Your task to perform on an android device: set default search engine in the chrome app Image 0: 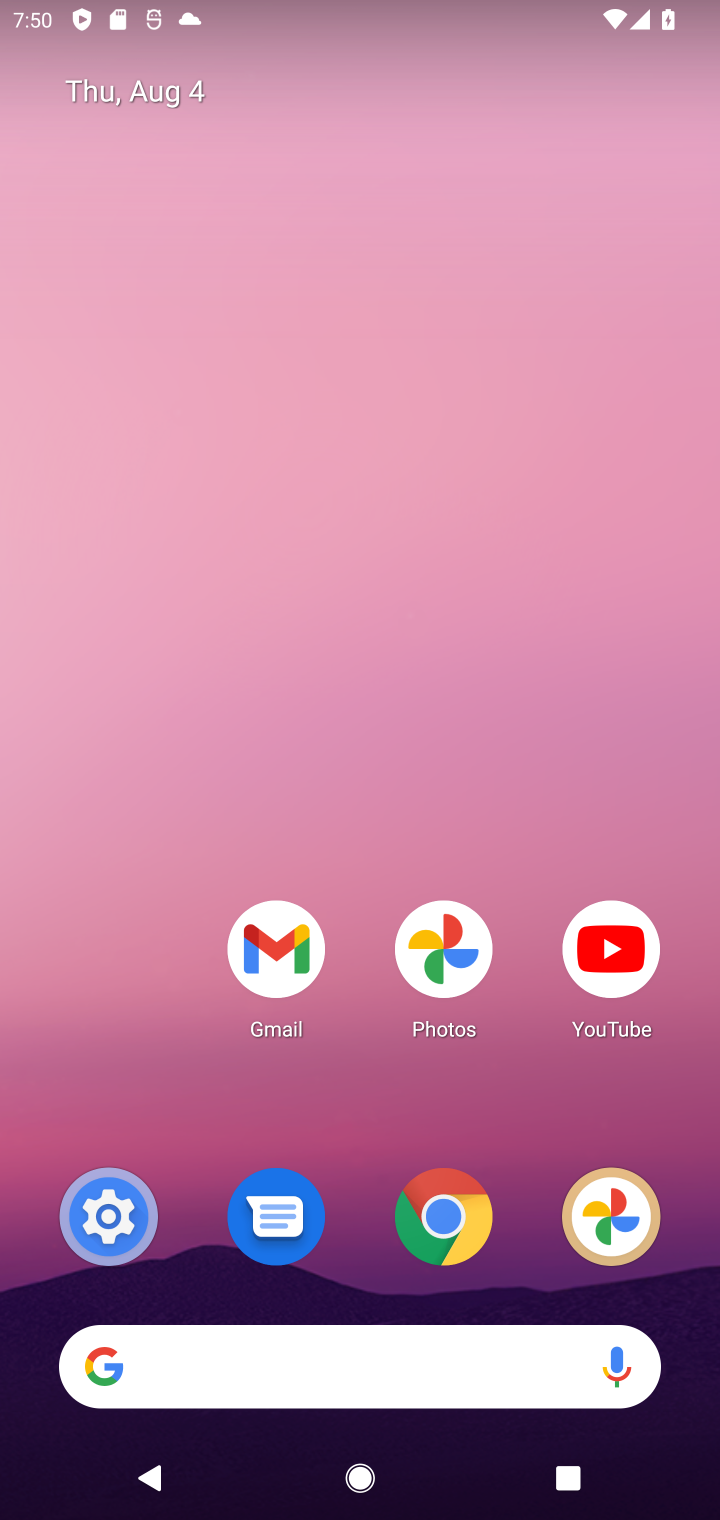
Step 0: click (441, 1207)
Your task to perform on an android device: set default search engine in the chrome app Image 1: 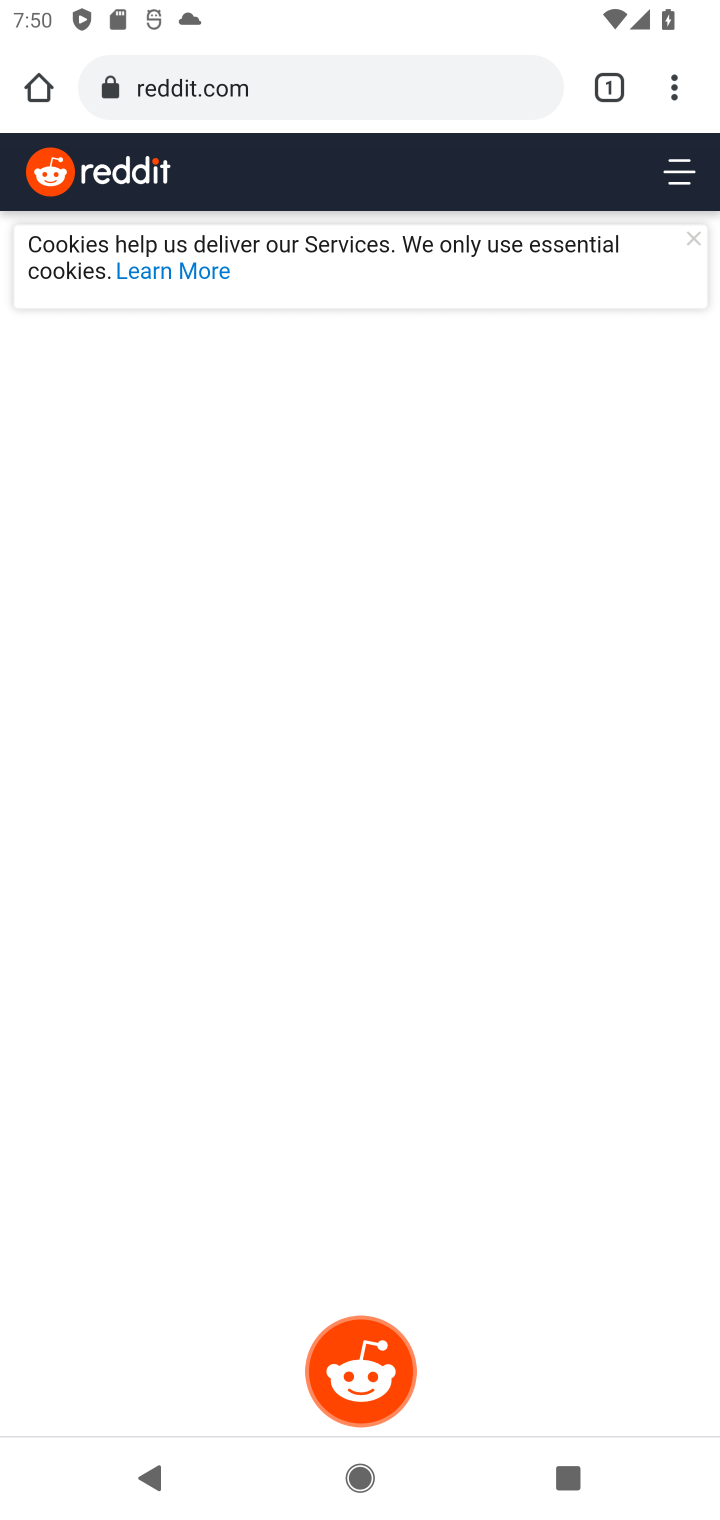
Step 1: click (673, 92)
Your task to perform on an android device: set default search engine in the chrome app Image 2: 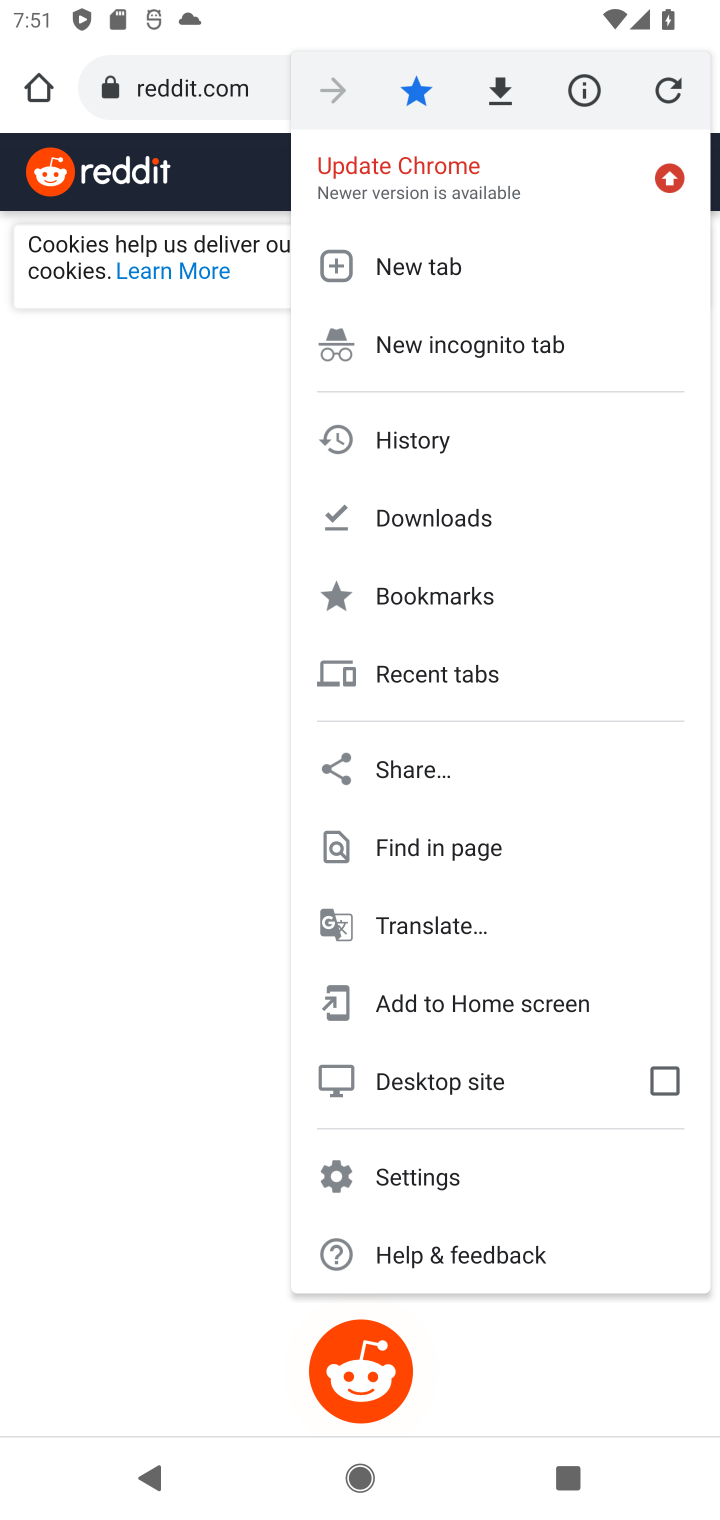
Step 2: click (422, 1158)
Your task to perform on an android device: set default search engine in the chrome app Image 3: 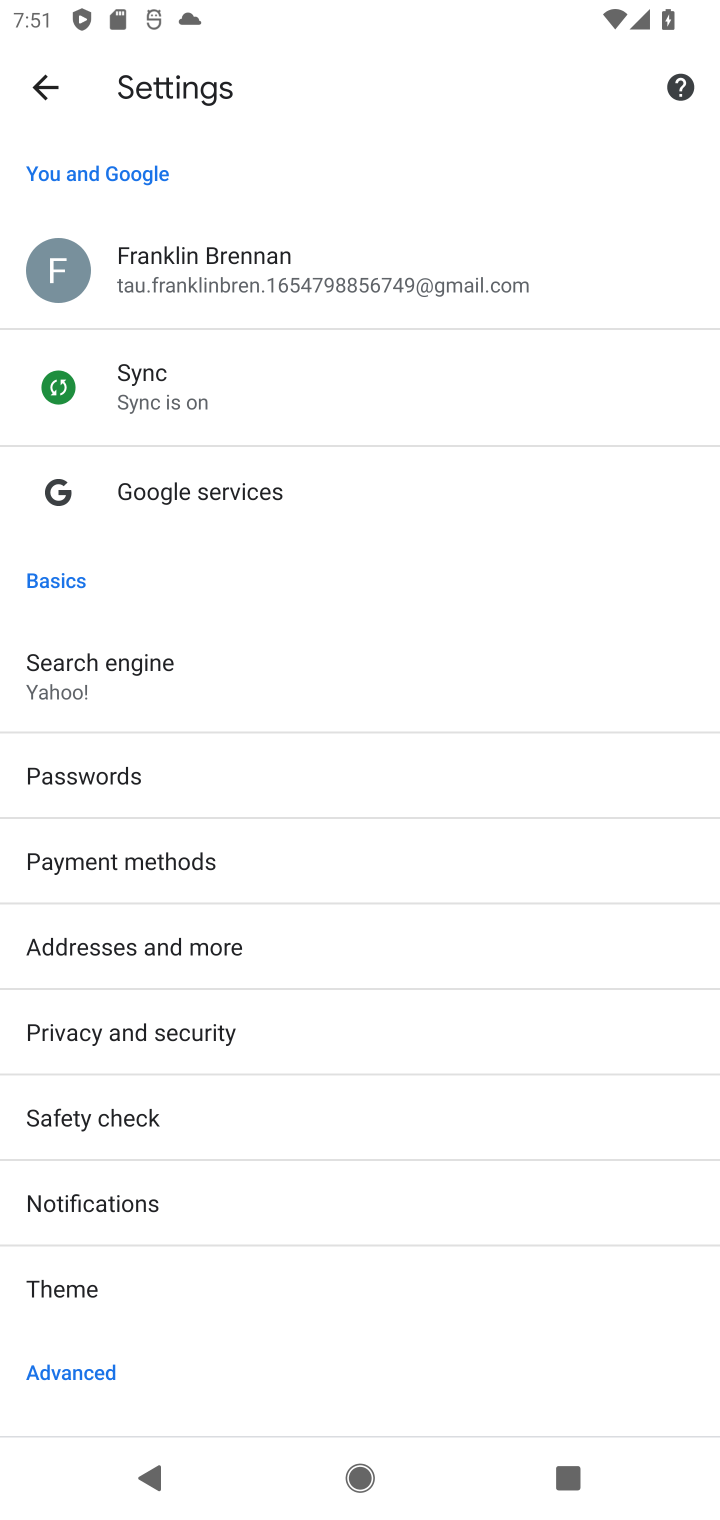
Step 3: drag from (173, 1240) to (197, 593)
Your task to perform on an android device: set default search engine in the chrome app Image 4: 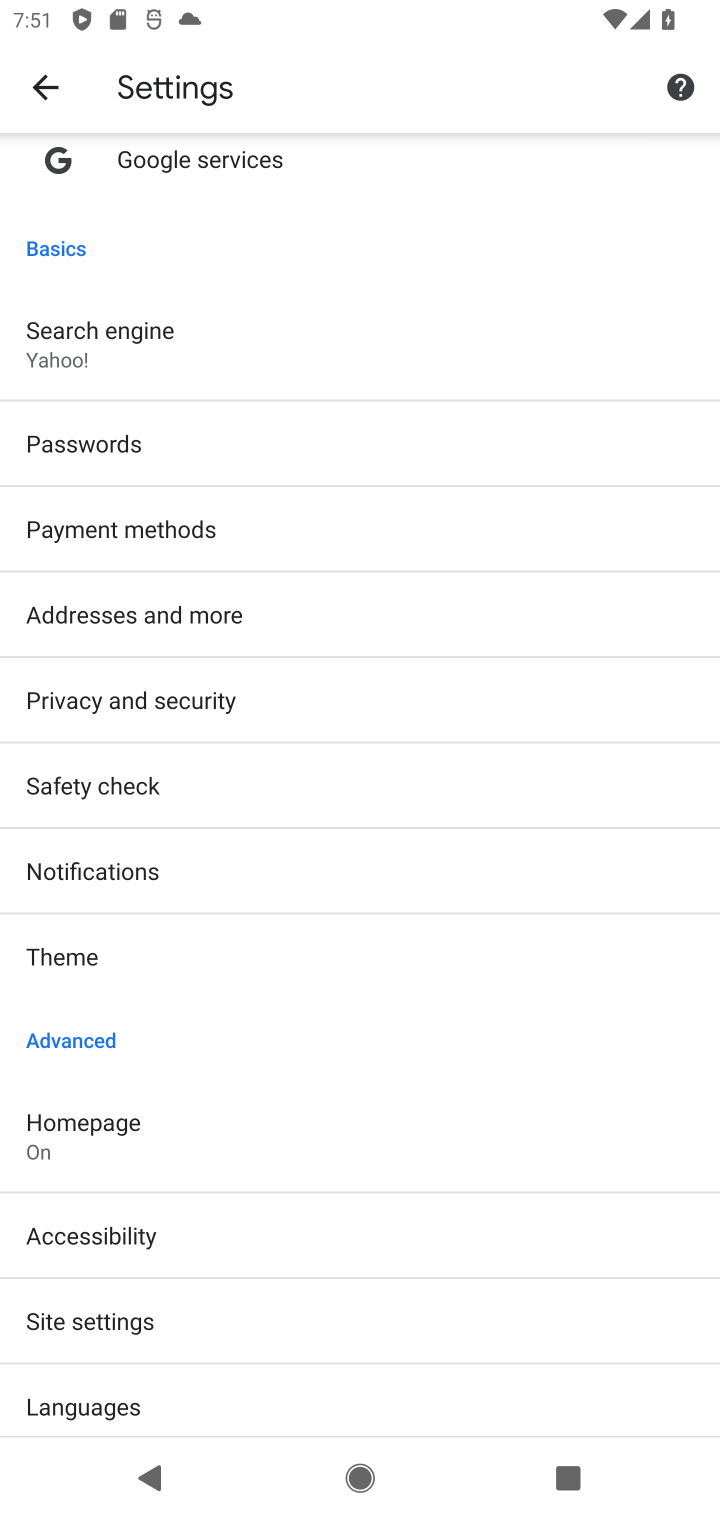
Step 4: click (81, 344)
Your task to perform on an android device: set default search engine in the chrome app Image 5: 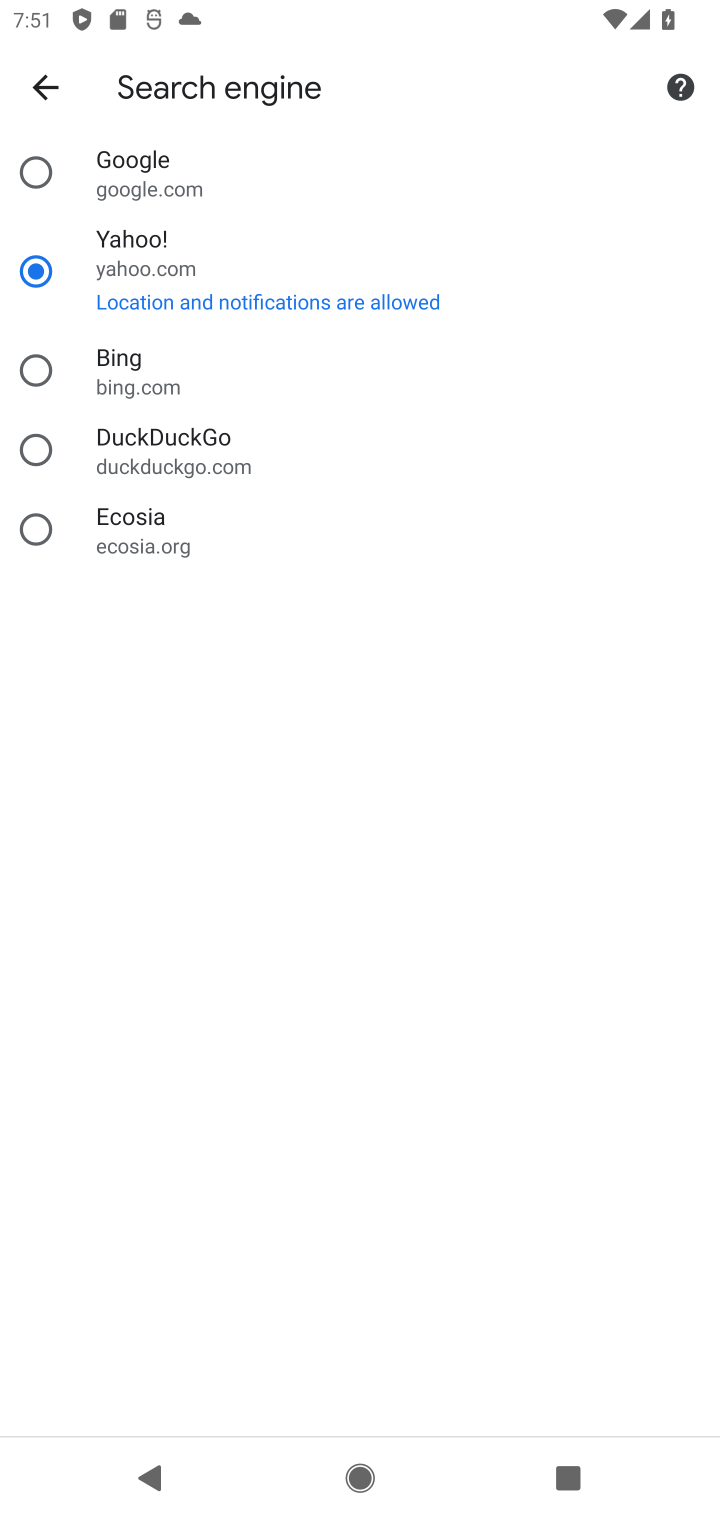
Step 5: click (46, 178)
Your task to perform on an android device: set default search engine in the chrome app Image 6: 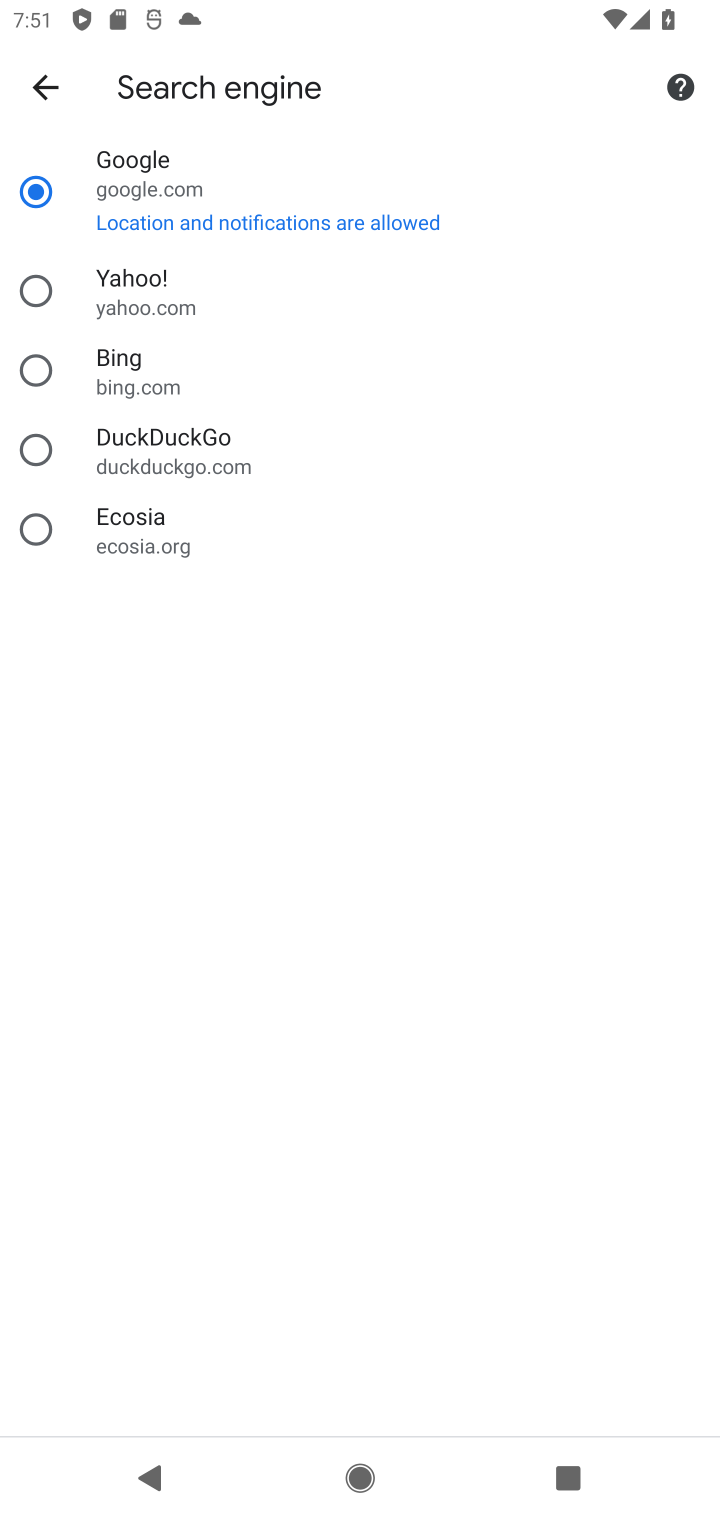
Step 6: task complete